Your task to perform on an android device: turn on wifi Image 0: 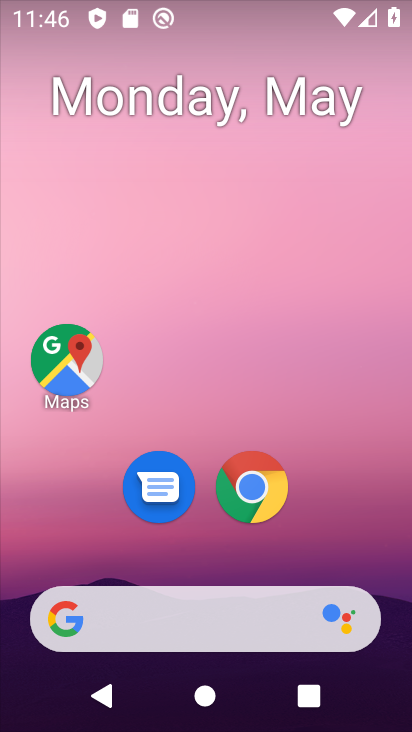
Step 0: drag from (97, 562) to (245, 95)
Your task to perform on an android device: turn on wifi Image 1: 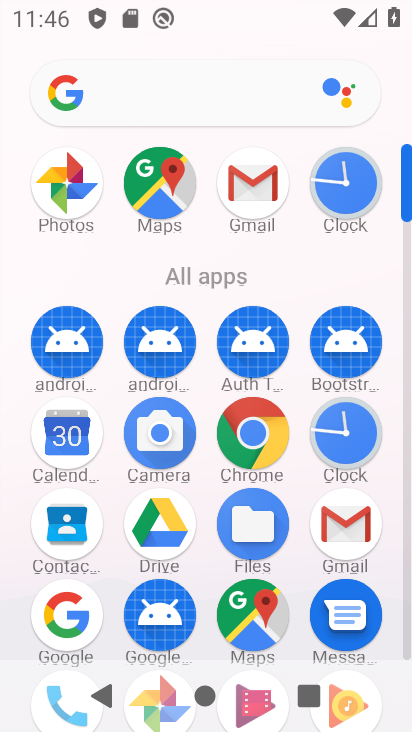
Step 1: drag from (183, 566) to (321, 262)
Your task to perform on an android device: turn on wifi Image 2: 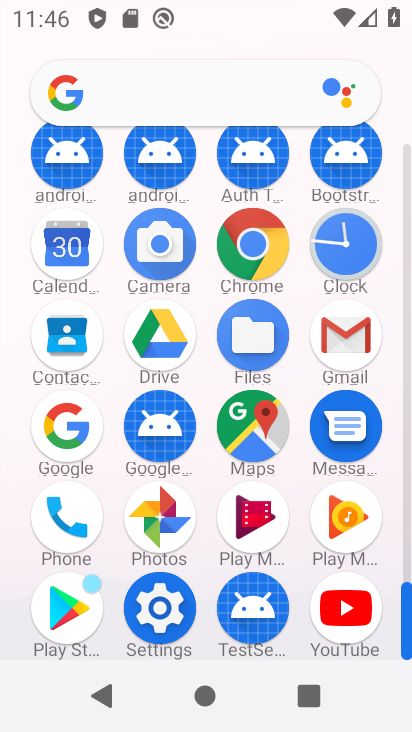
Step 2: click (151, 623)
Your task to perform on an android device: turn on wifi Image 3: 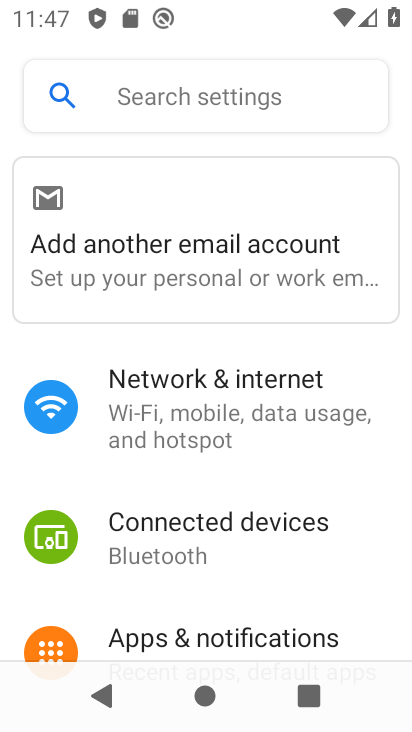
Step 3: click (295, 414)
Your task to perform on an android device: turn on wifi Image 4: 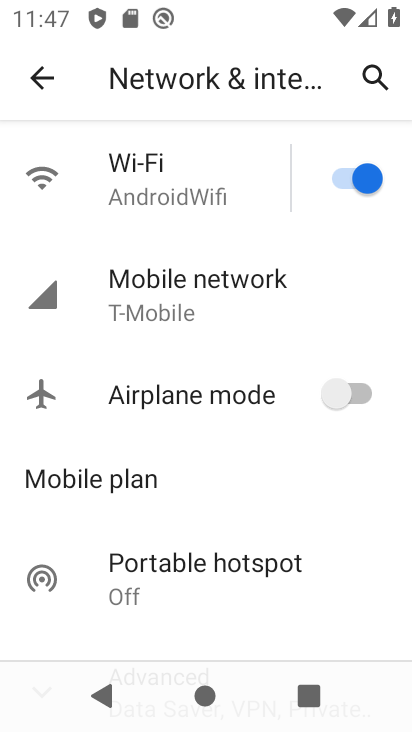
Step 4: task complete